Your task to perform on an android device: turn off notifications in google photos Image 0: 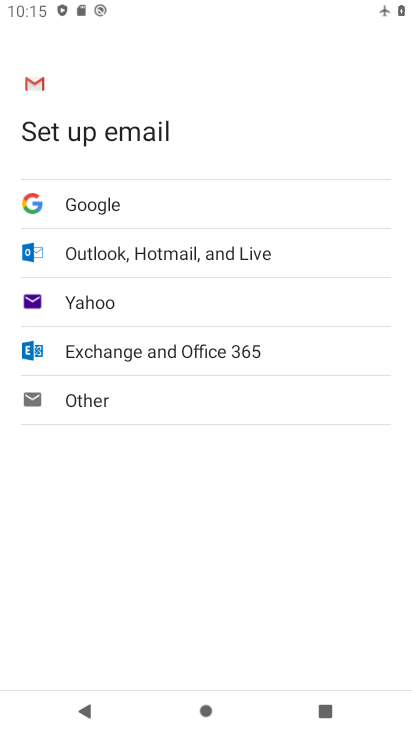
Step 0: press back button
Your task to perform on an android device: turn off notifications in google photos Image 1: 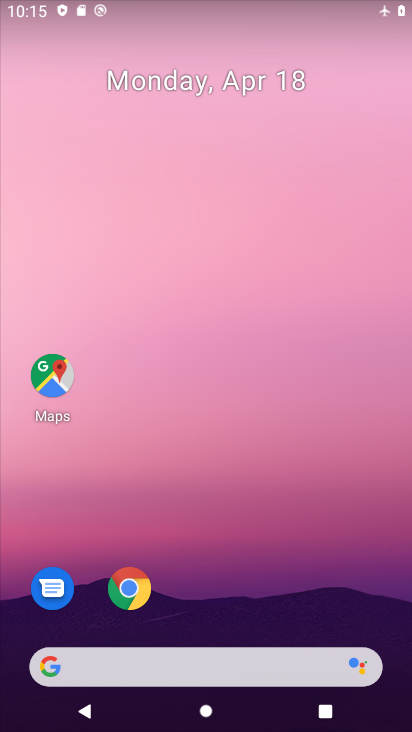
Step 1: drag from (229, 568) to (199, 13)
Your task to perform on an android device: turn off notifications in google photos Image 2: 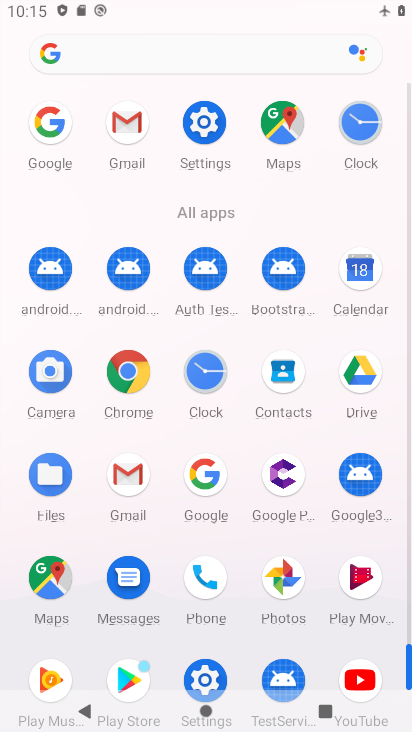
Step 2: click (284, 577)
Your task to perform on an android device: turn off notifications in google photos Image 3: 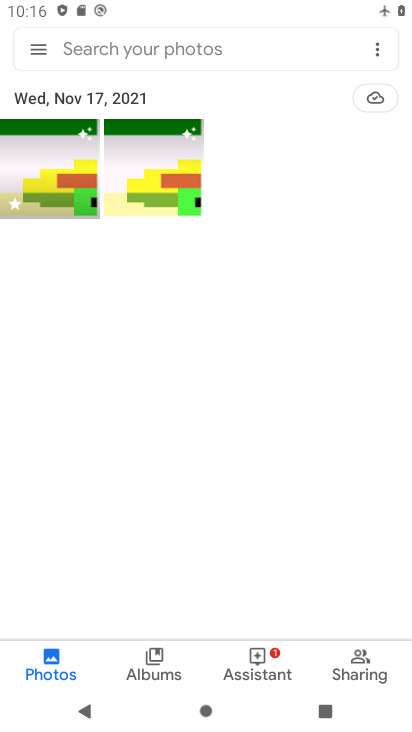
Step 3: drag from (303, 242) to (294, 465)
Your task to perform on an android device: turn off notifications in google photos Image 4: 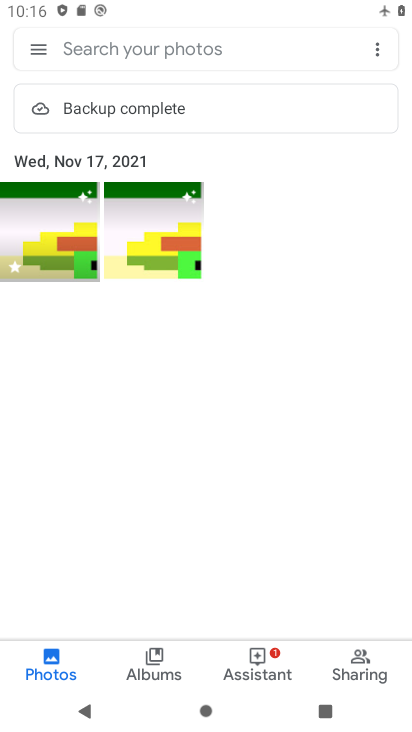
Step 4: click (33, 42)
Your task to perform on an android device: turn off notifications in google photos Image 5: 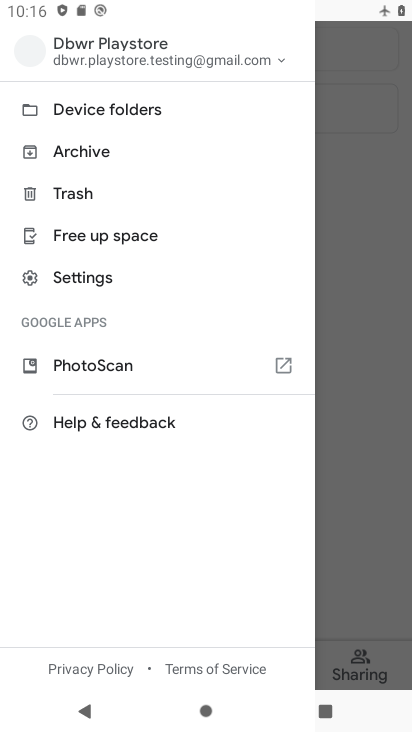
Step 5: click (101, 269)
Your task to perform on an android device: turn off notifications in google photos Image 6: 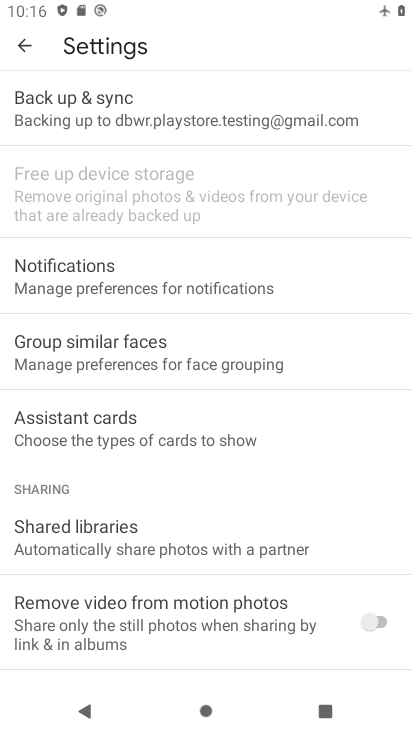
Step 6: click (123, 285)
Your task to perform on an android device: turn off notifications in google photos Image 7: 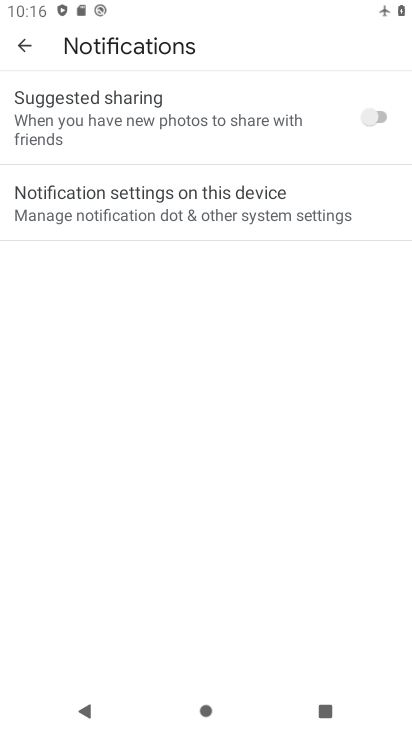
Step 7: click (193, 205)
Your task to perform on an android device: turn off notifications in google photos Image 8: 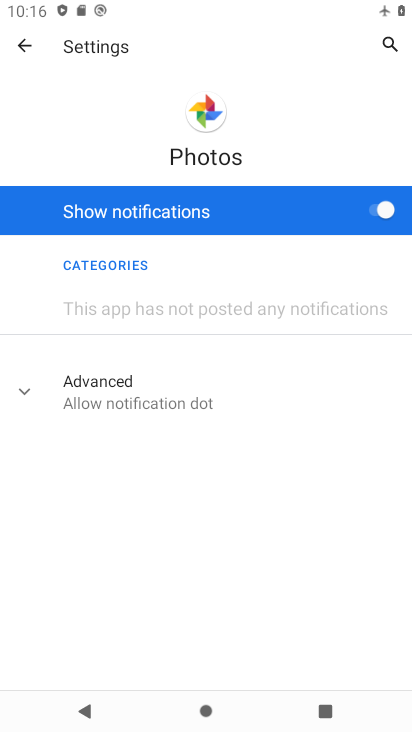
Step 8: click (367, 205)
Your task to perform on an android device: turn off notifications in google photos Image 9: 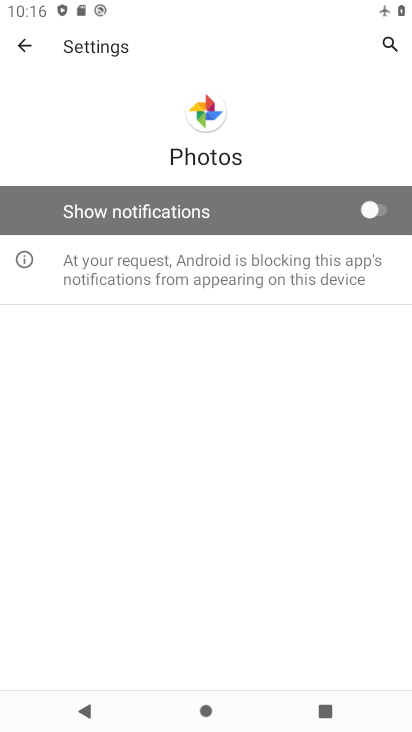
Step 9: task complete